Your task to perform on an android device: clear history in the chrome app Image 0: 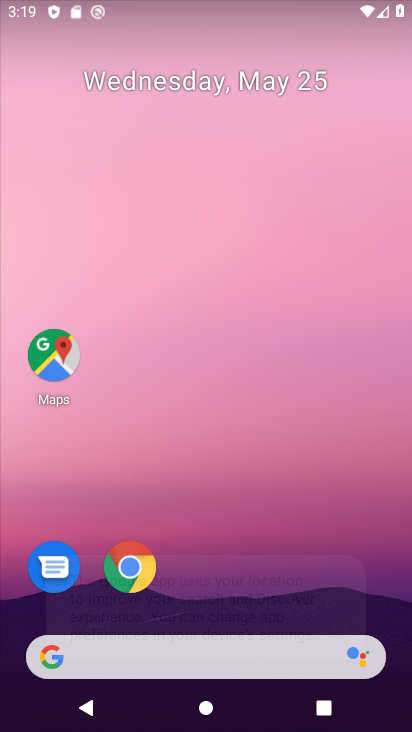
Step 0: drag from (225, 532) to (201, 86)
Your task to perform on an android device: clear history in the chrome app Image 1: 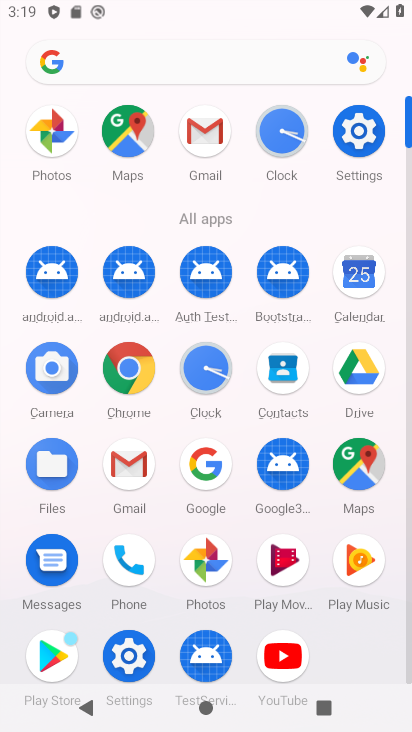
Step 1: click (127, 370)
Your task to perform on an android device: clear history in the chrome app Image 2: 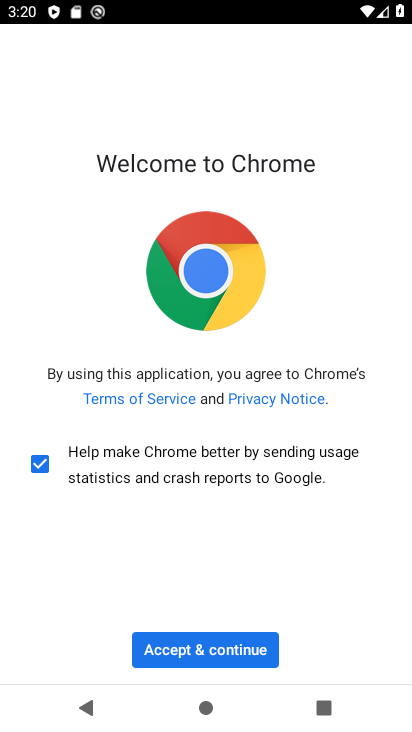
Step 2: click (226, 647)
Your task to perform on an android device: clear history in the chrome app Image 3: 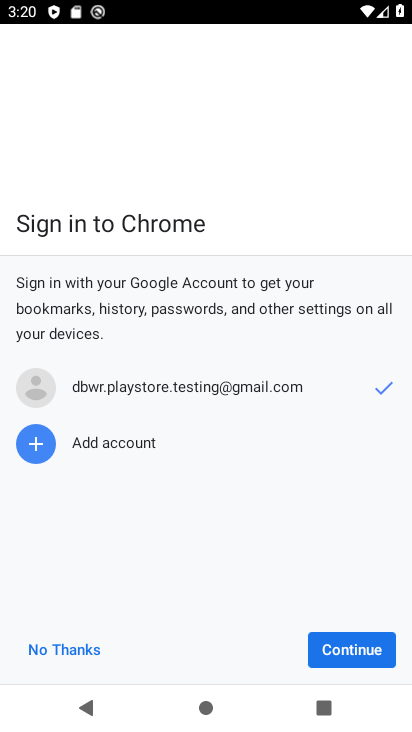
Step 3: click (336, 647)
Your task to perform on an android device: clear history in the chrome app Image 4: 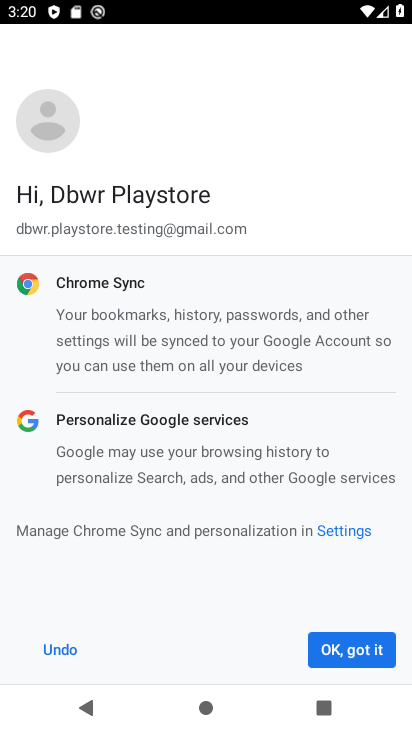
Step 4: click (336, 647)
Your task to perform on an android device: clear history in the chrome app Image 5: 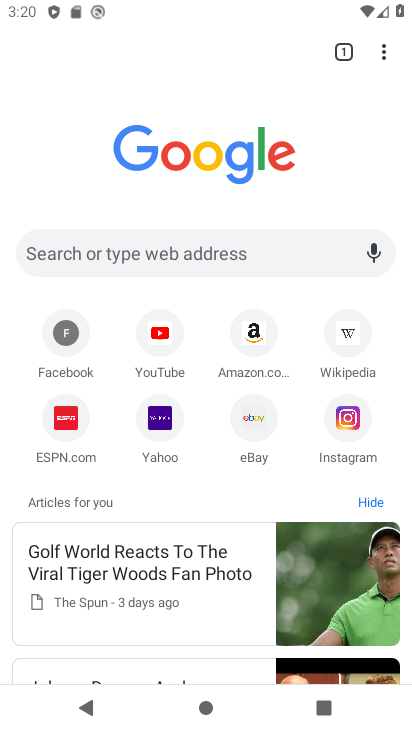
Step 5: task complete